Your task to perform on an android device: What's the US dollar exchange rate against the Canadian Dollar? Image 0: 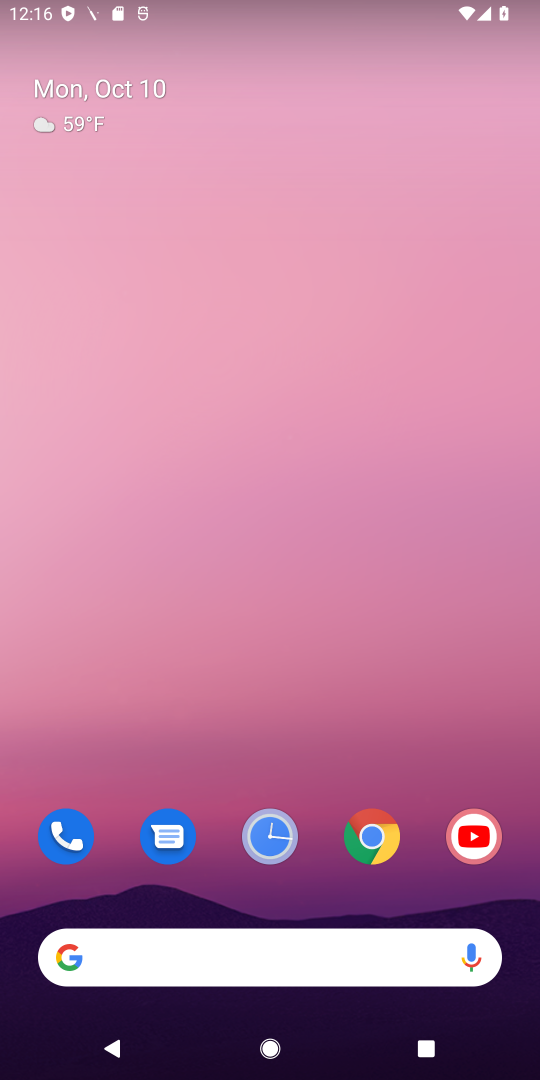
Step 0: click (389, 844)
Your task to perform on an android device: What's the US dollar exchange rate against the Canadian Dollar? Image 1: 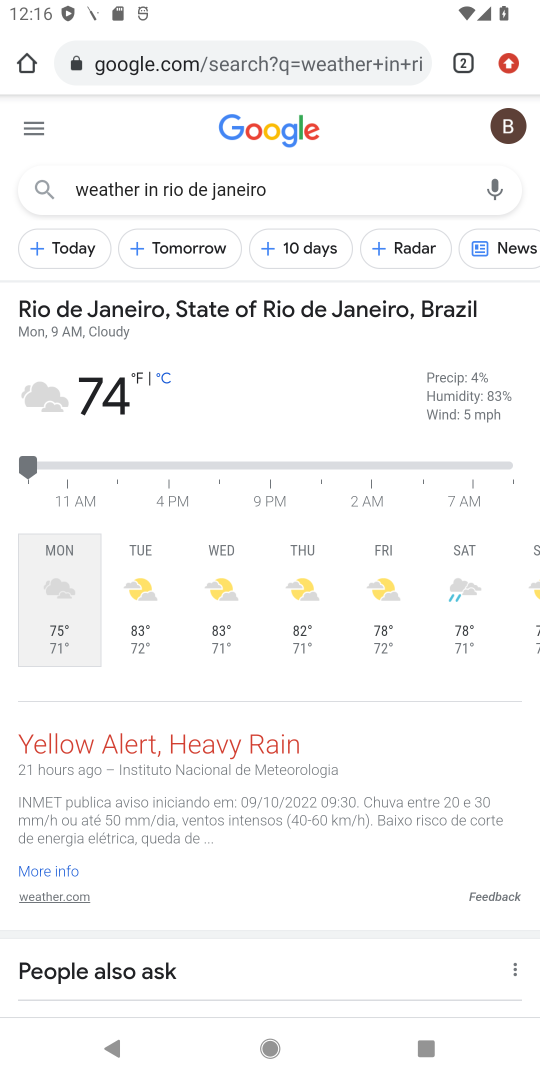
Step 1: click (335, 74)
Your task to perform on an android device: What's the US dollar exchange rate against the Canadian Dollar? Image 2: 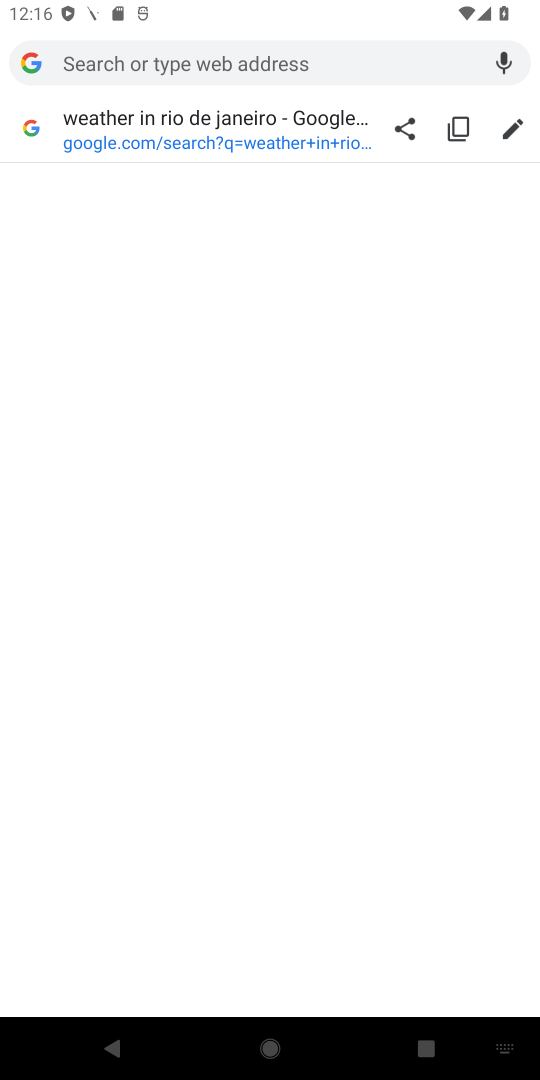
Step 2: type "US dollar exchange rate against the Canadian Dollar"
Your task to perform on an android device: What's the US dollar exchange rate against the Canadian Dollar? Image 3: 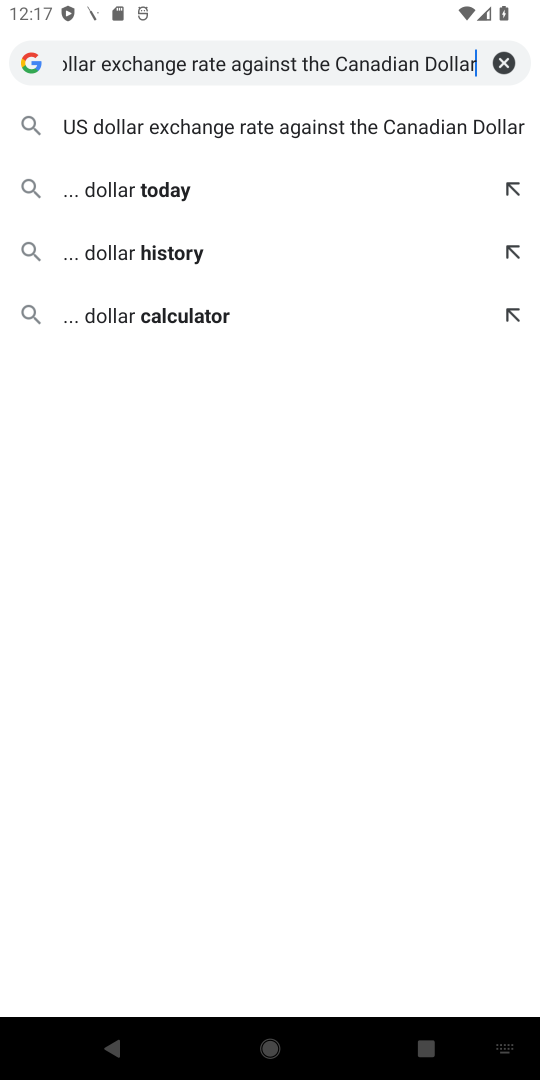
Step 3: click (392, 121)
Your task to perform on an android device: What's the US dollar exchange rate against the Canadian Dollar? Image 4: 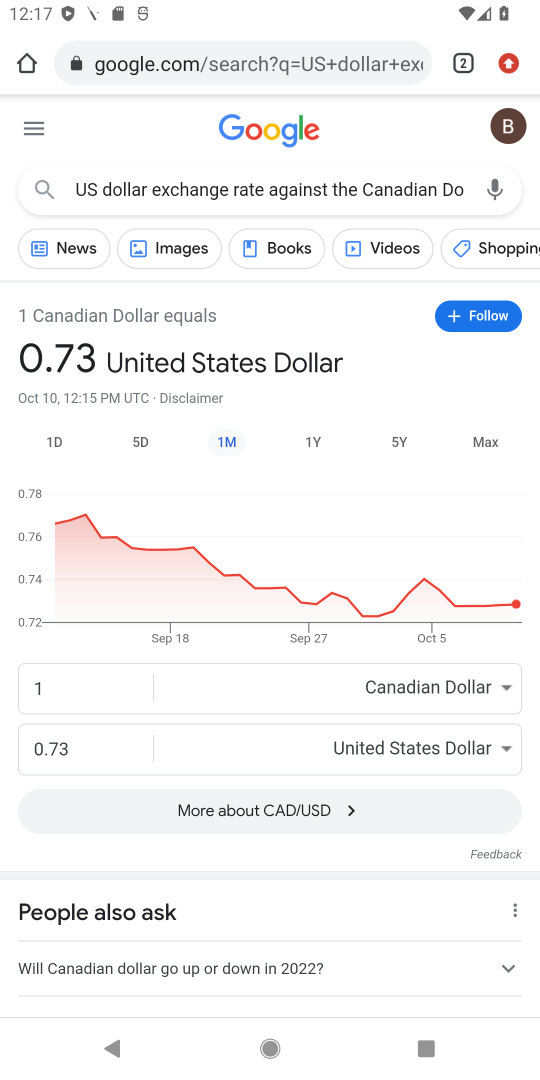
Step 4: task complete